Your task to perform on an android device: turn on the 12-hour format for clock Image 0: 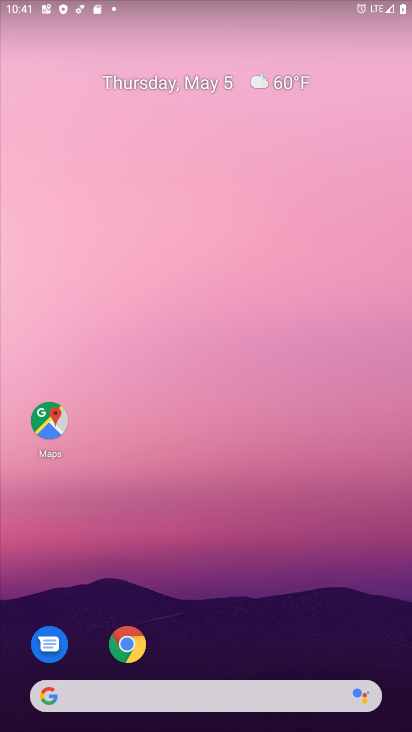
Step 0: drag from (209, 620) to (256, 206)
Your task to perform on an android device: turn on the 12-hour format for clock Image 1: 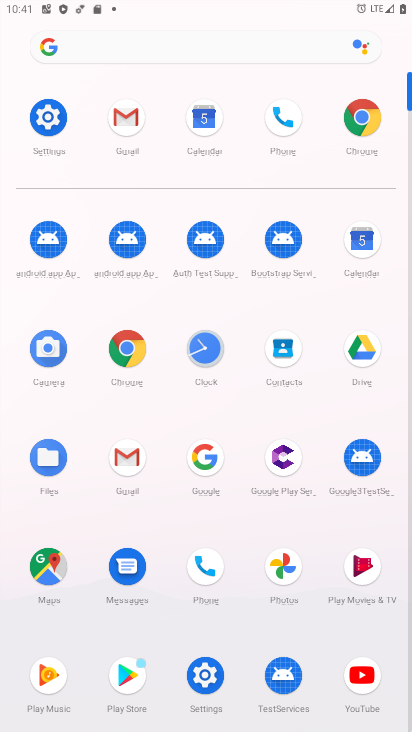
Step 1: click (211, 354)
Your task to perform on an android device: turn on the 12-hour format for clock Image 2: 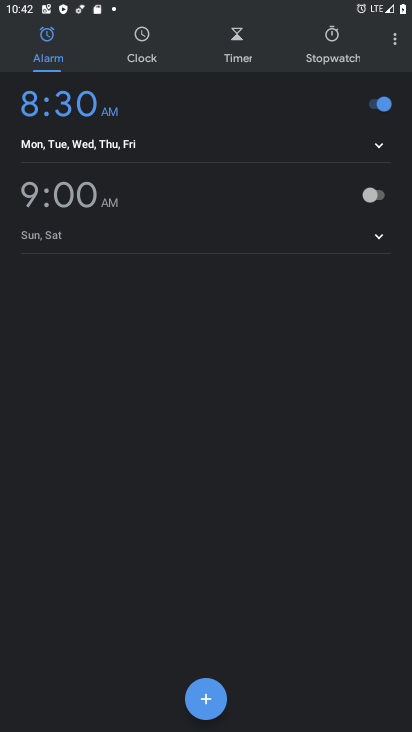
Step 2: click (396, 42)
Your task to perform on an android device: turn on the 12-hour format for clock Image 3: 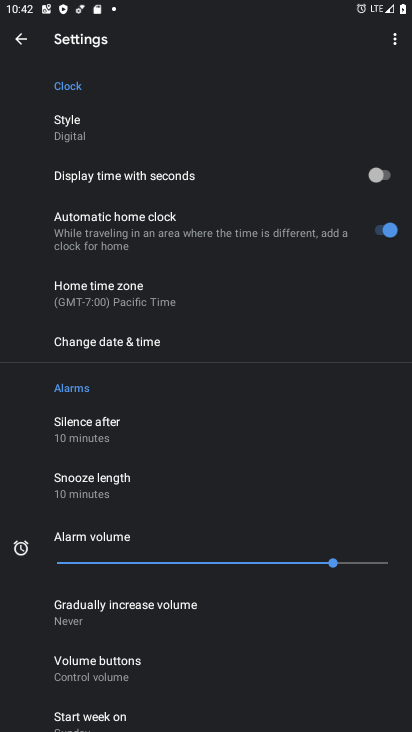
Step 3: drag from (257, 640) to (368, 330)
Your task to perform on an android device: turn on the 12-hour format for clock Image 4: 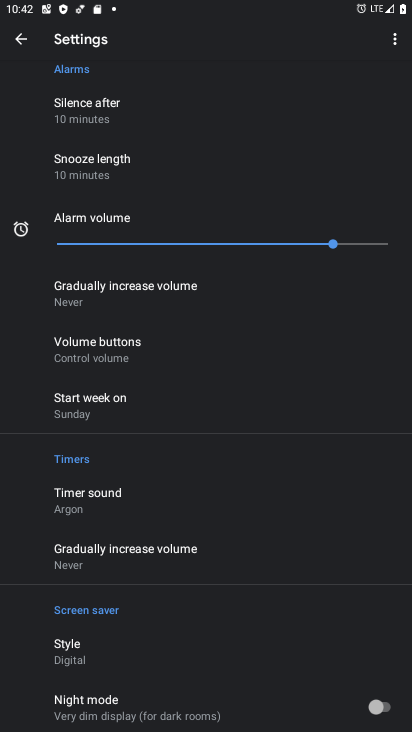
Step 4: drag from (221, 338) to (226, 631)
Your task to perform on an android device: turn on the 12-hour format for clock Image 5: 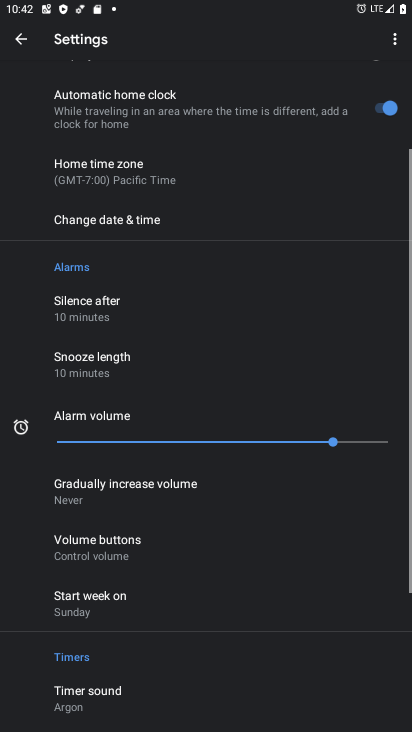
Step 5: drag from (253, 351) to (257, 640)
Your task to perform on an android device: turn on the 12-hour format for clock Image 6: 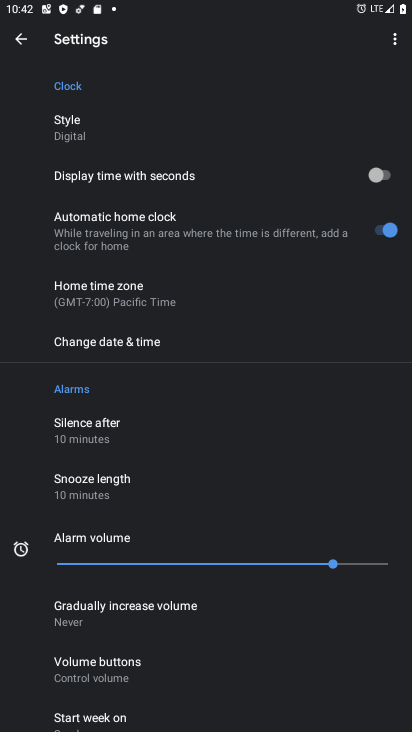
Step 6: click (157, 349)
Your task to perform on an android device: turn on the 12-hour format for clock Image 7: 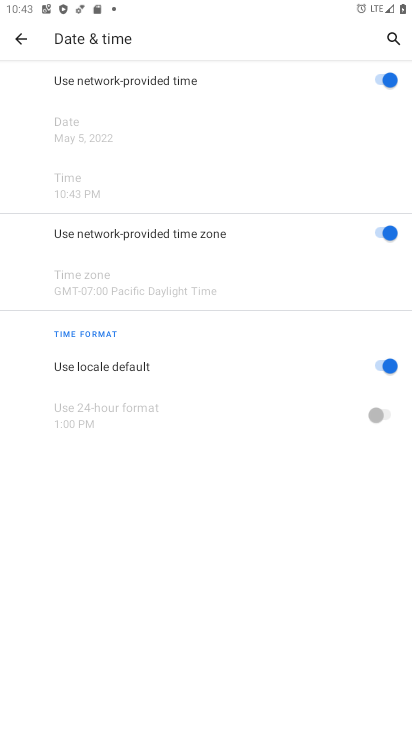
Step 7: task complete